Your task to perform on an android device: Show me recent news Image 0: 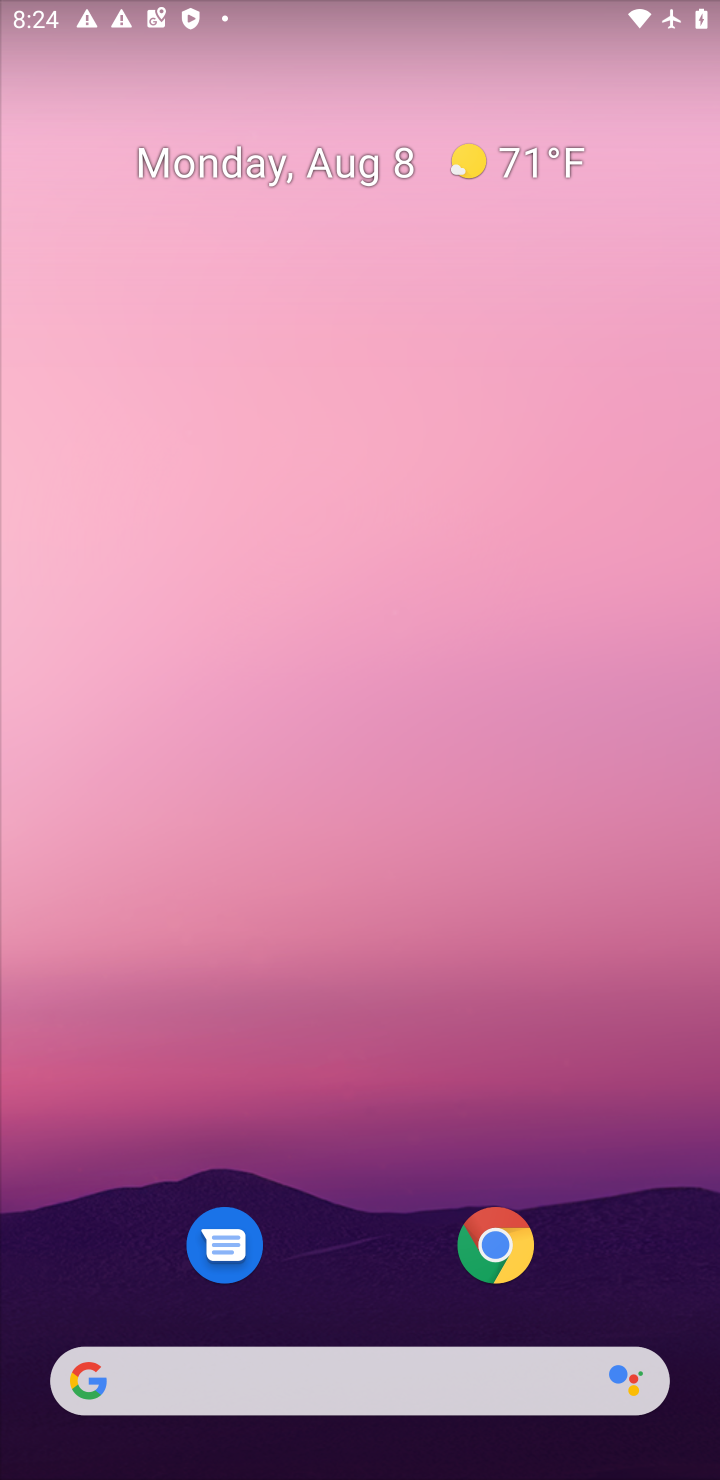
Step 0: drag from (367, 1343) to (424, 138)
Your task to perform on an android device: Show me recent news Image 1: 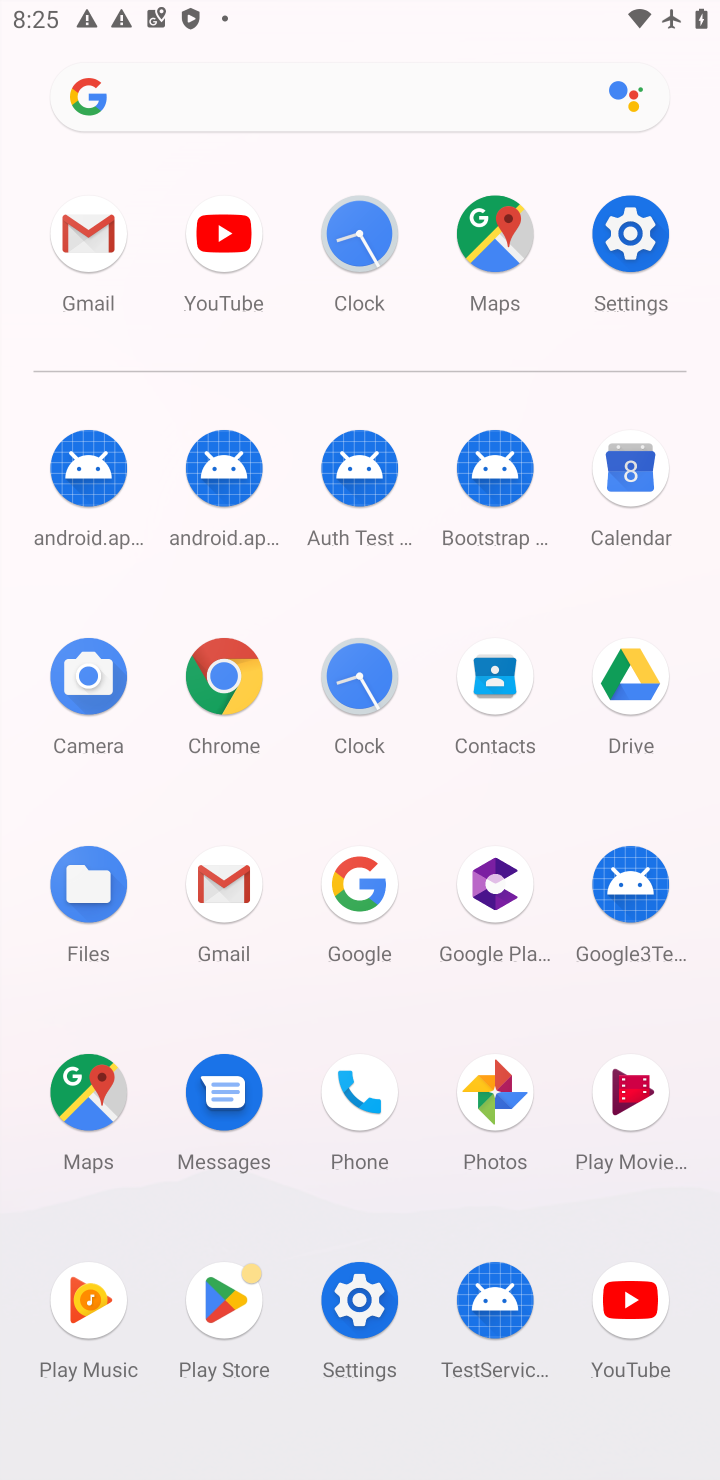
Step 1: click (399, 93)
Your task to perform on an android device: Show me recent news Image 2: 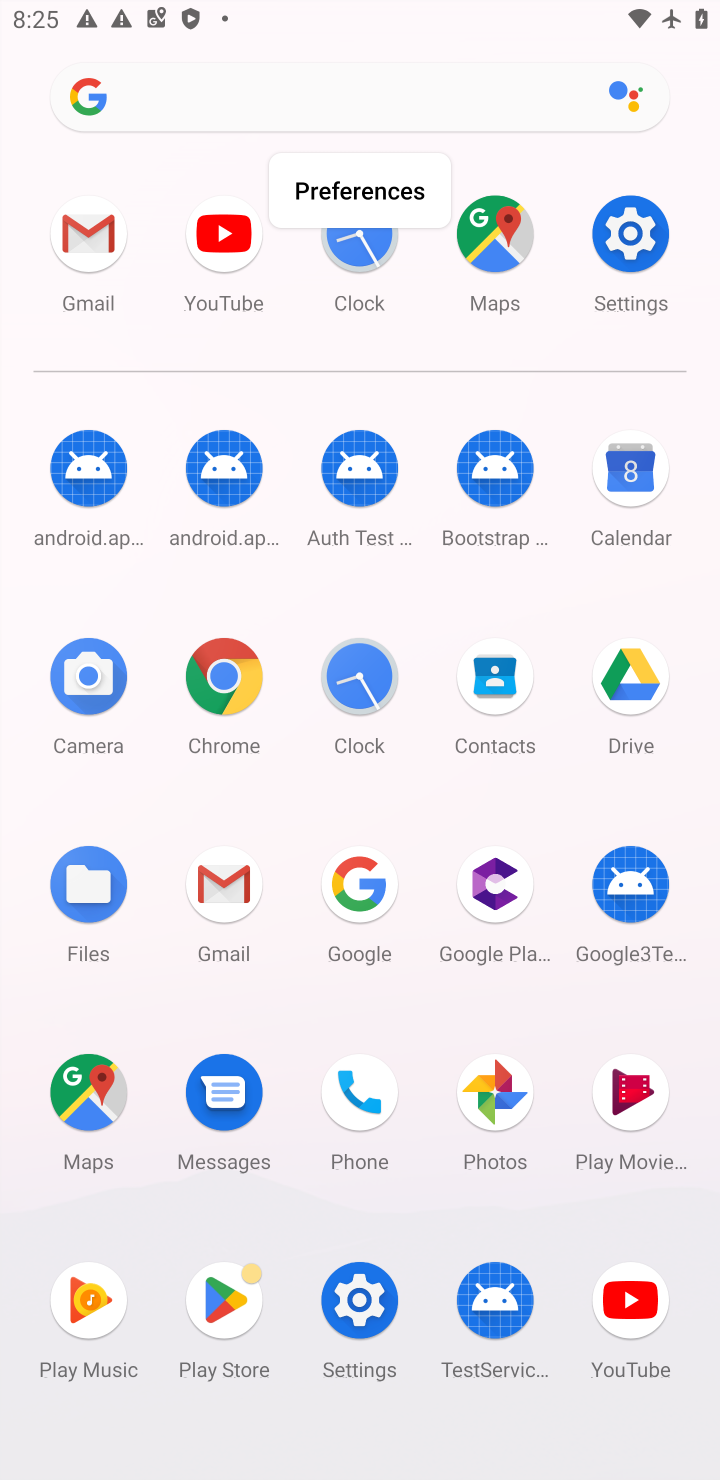
Step 2: click (270, 108)
Your task to perform on an android device: Show me recent news Image 3: 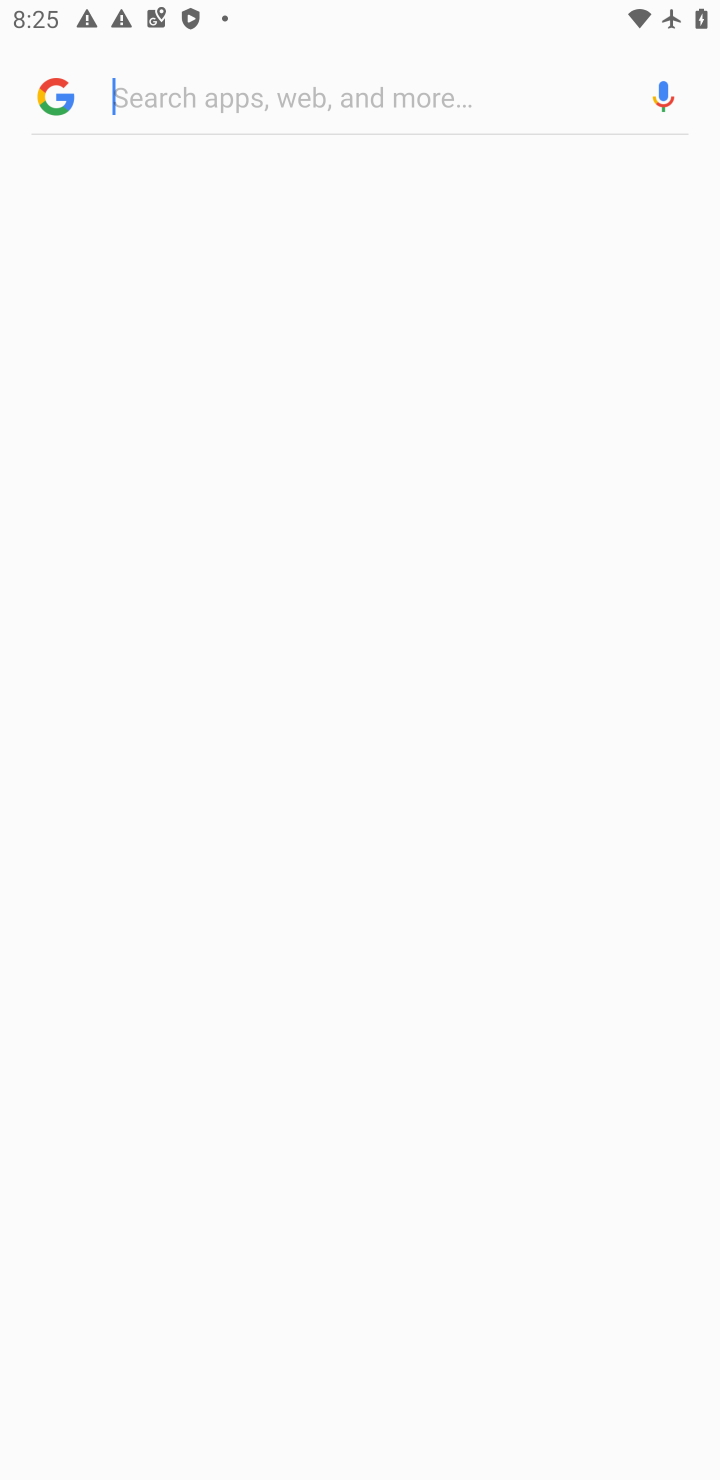
Step 3: click (276, 102)
Your task to perform on an android device: Show me recent news Image 4: 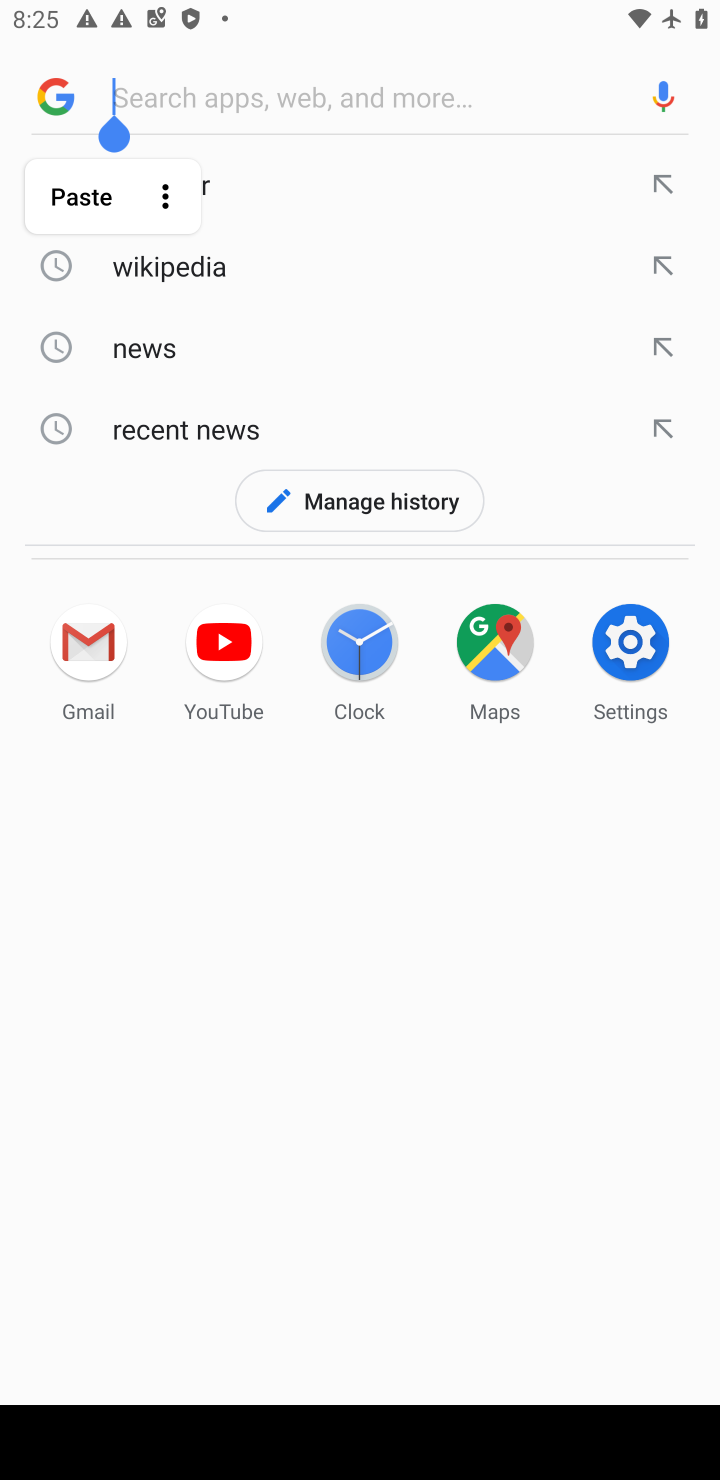
Step 4: type "recent news"
Your task to perform on an android device: Show me recent news Image 5: 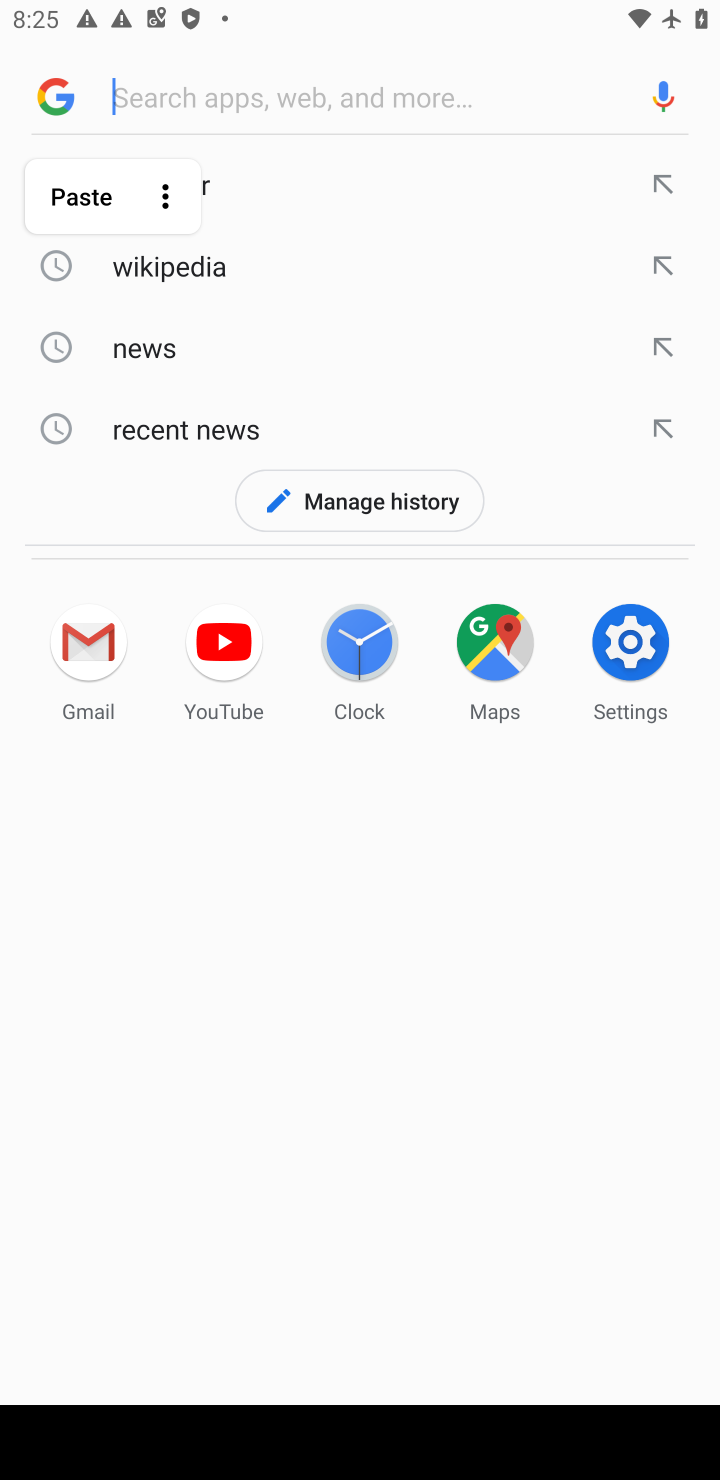
Step 5: click (487, 96)
Your task to perform on an android device: Show me recent news Image 6: 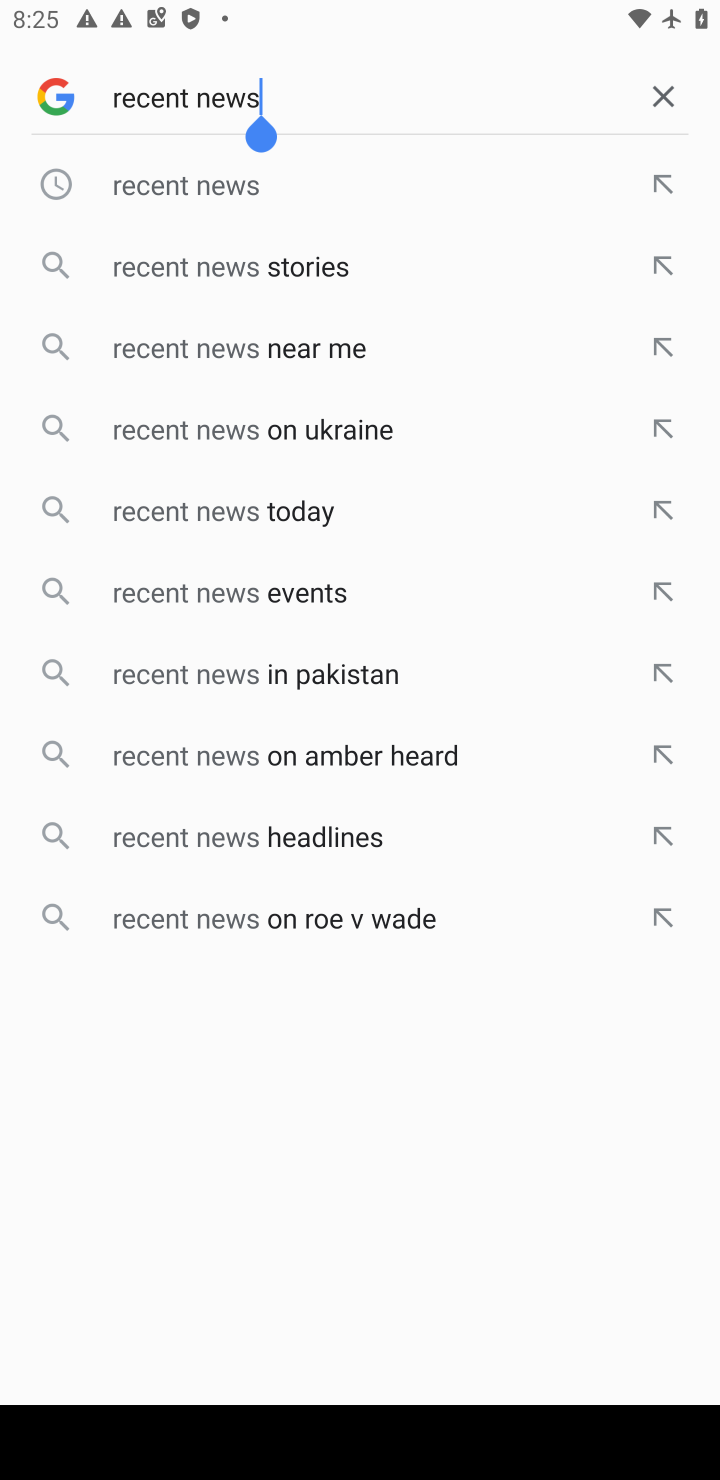
Step 6: click (256, 196)
Your task to perform on an android device: Show me recent news Image 7: 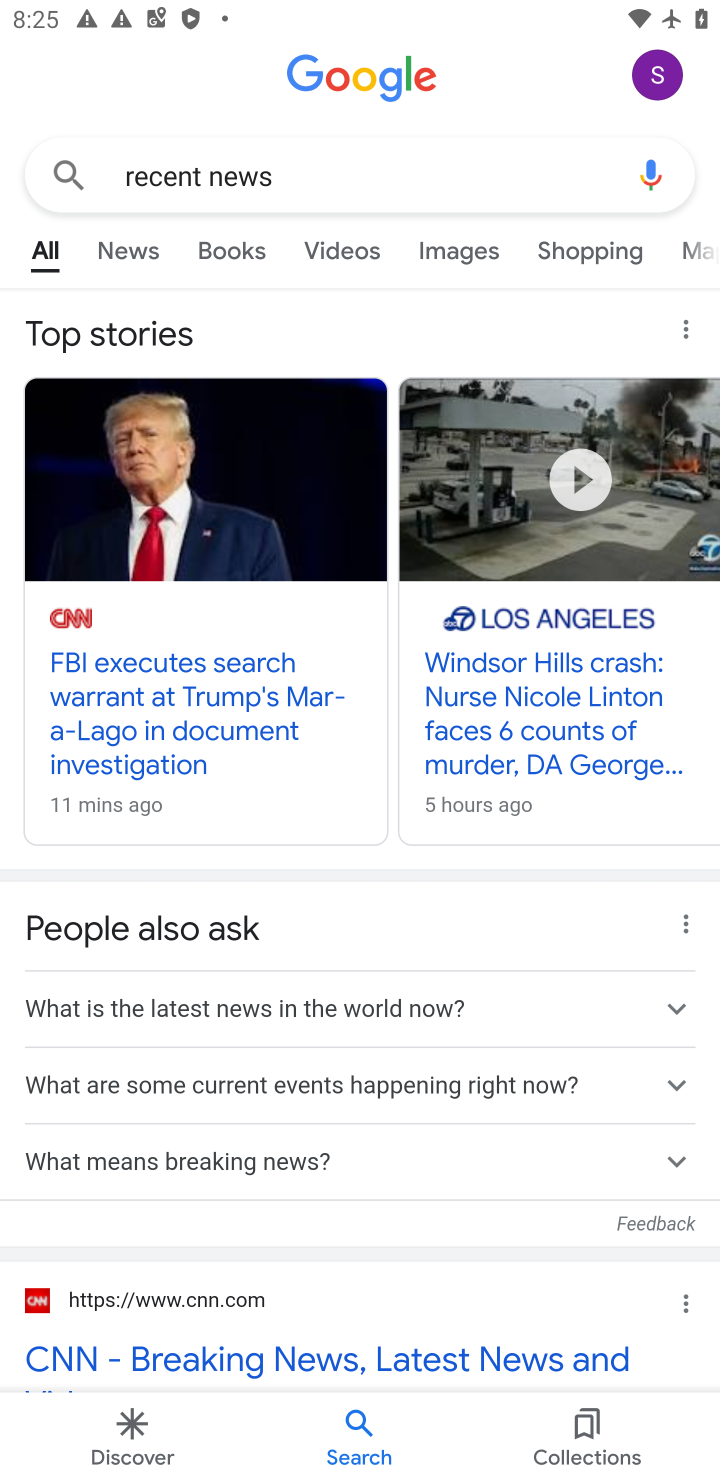
Step 7: task complete